Your task to perform on an android device: turn off wifi Image 0: 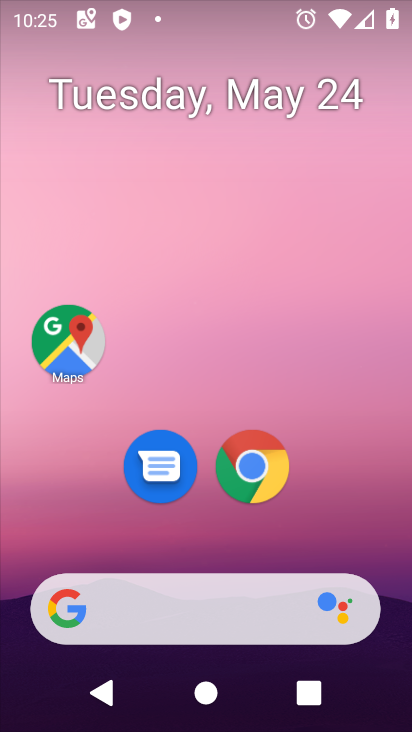
Step 0: drag from (388, 555) to (375, 190)
Your task to perform on an android device: turn off wifi Image 1: 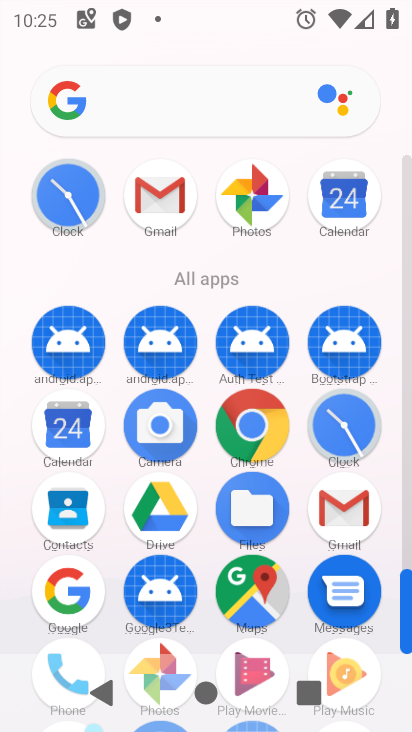
Step 1: drag from (395, 533) to (393, 273)
Your task to perform on an android device: turn off wifi Image 2: 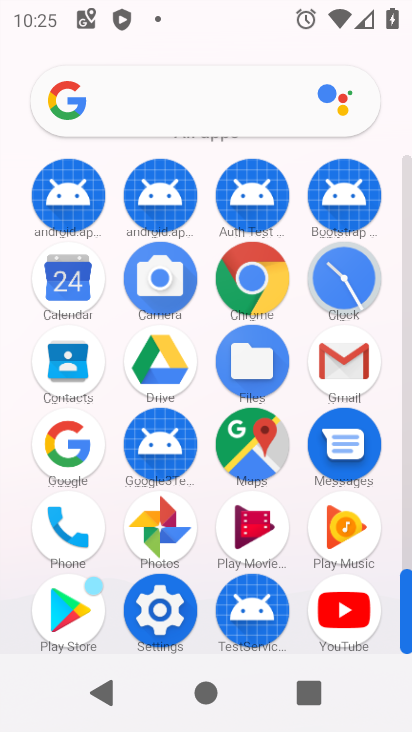
Step 2: click (163, 616)
Your task to perform on an android device: turn off wifi Image 3: 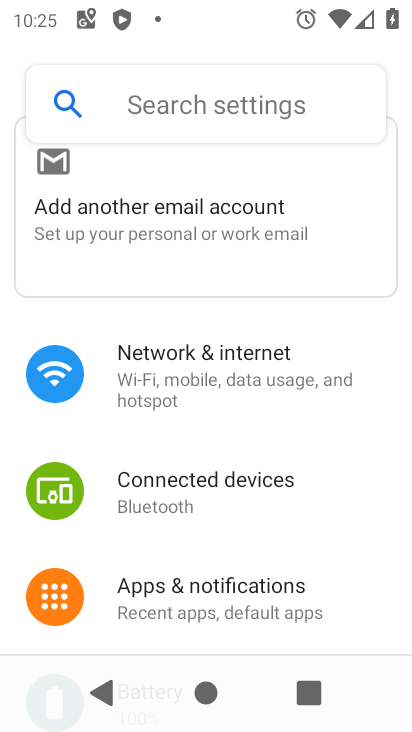
Step 3: click (303, 387)
Your task to perform on an android device: turn off wifi Image 4: 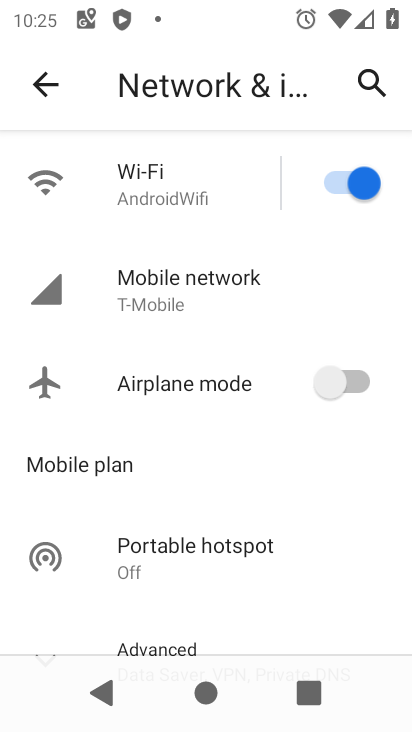
Step 4: click (363, 190)
Your task to perform on an android device: turn off wifi Image 5: 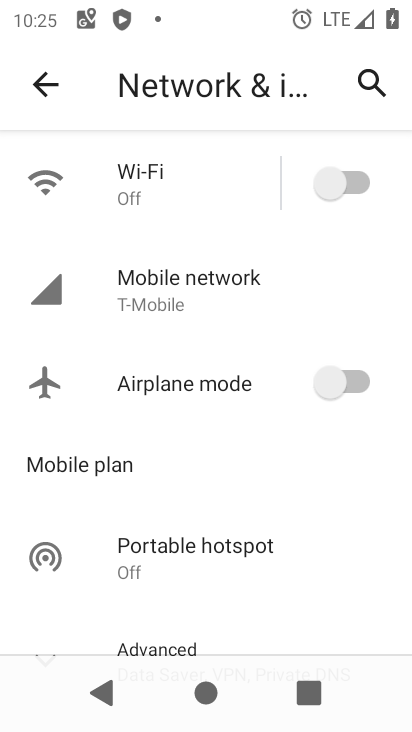
Step 5: task complete